Your task to perform on an android device: turn off javascript in the chrome app Image 0: 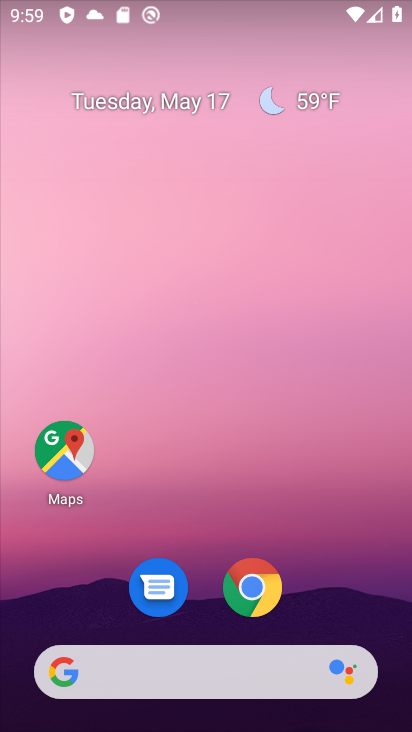
Step 0: click (267, 580)
Your task to perform on an android device: turn off javascript in the chrome app Image 1: 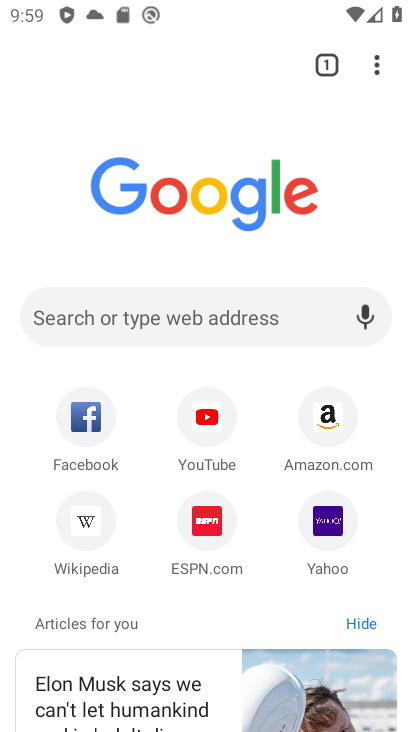
Step 1: click (380, 56)
Your task to perform on an android device: turn off javascript in the chrome app Image 2: 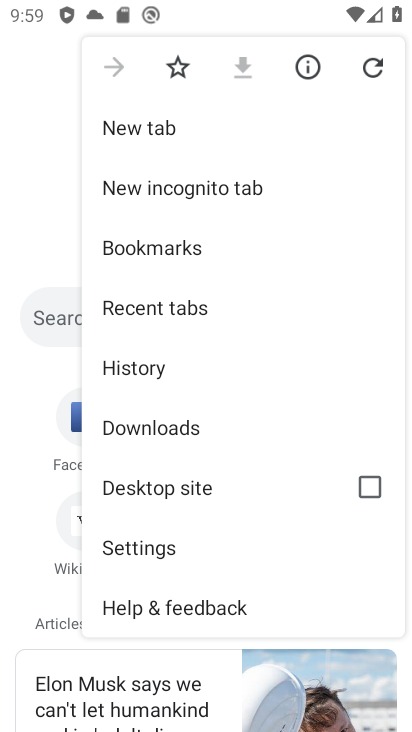
Step 2: click (153, 542)
Your task to perform on an android device: turn off javascript in the chrome app Image 3: 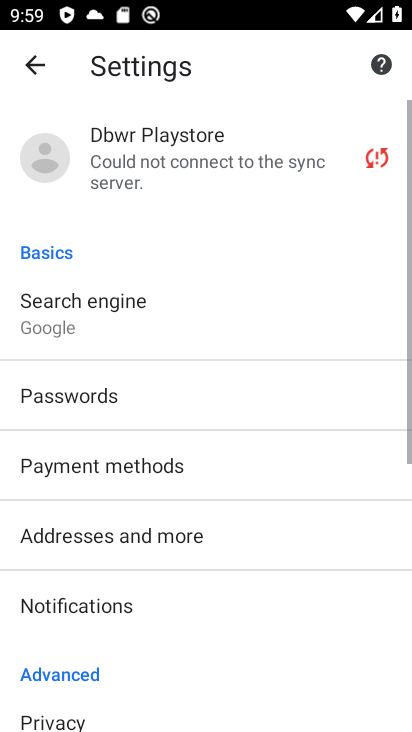
Step 3: drag from (198, 660) to (247, 379)
Your task to perform on an android device: turn off javascript in the chrome app Image 4: 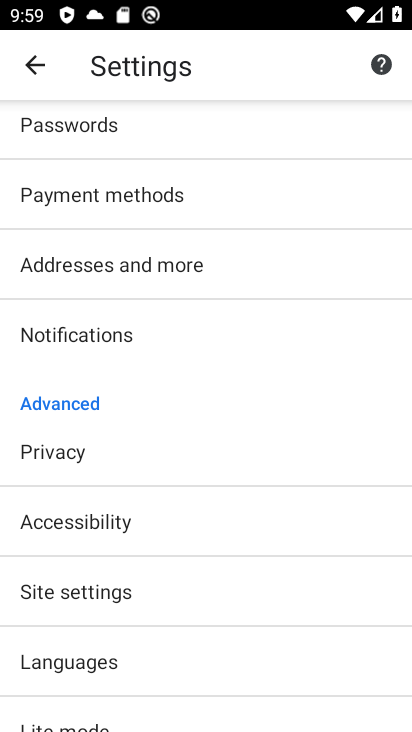
Step 4: click (109, 593)
Your task to perform on an android device: turn off javascript in the chrome app Image 5: 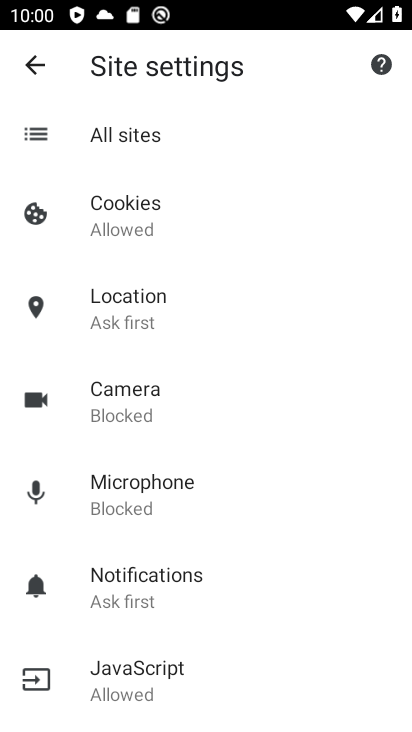
Step 5: click (136, 688)
Your task to perform on an android device: turn off javascript in the chrome app Image 6: 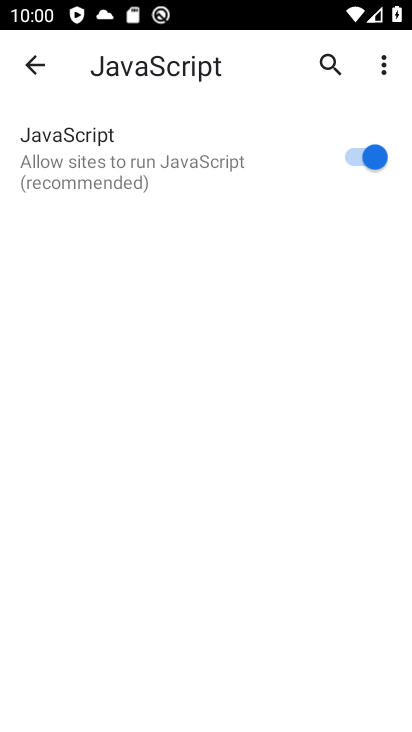
Step 6: click (357, 145)
Your task to perform on an android device: turn off javascript in the chrome app Image 7: 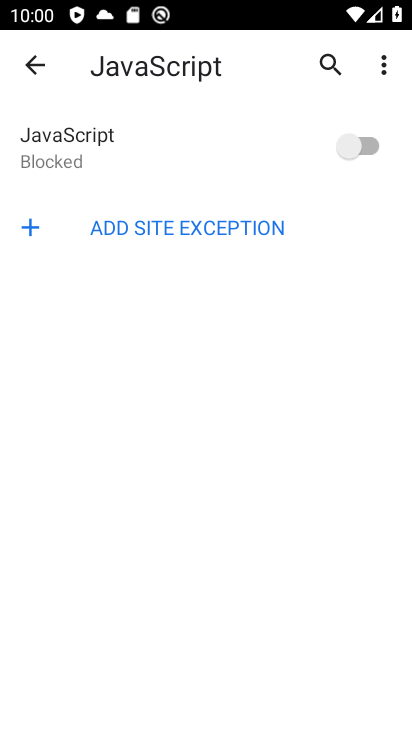
Step 7: task complete